Your task to perform on an android device: toggle priority inbox in the gmail app Image 0: 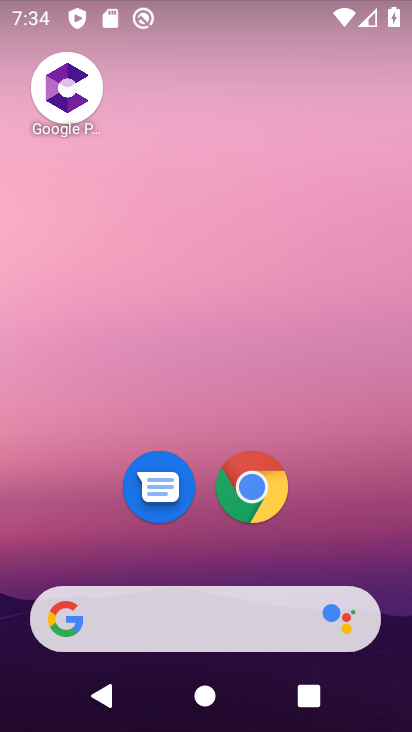
Step 0: drag from (299, 552) to (271, 75)
Your task to perform on an android device: toggle priority inbox in the gmail app Image 1: 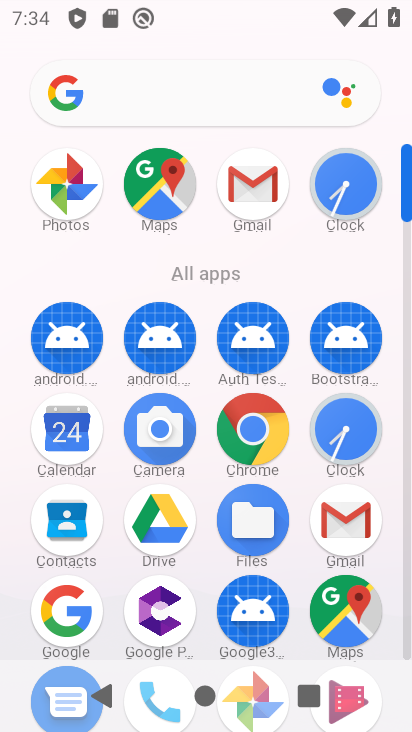
Step 1: click (252, 177)
Your task to perform on an android device: toggle priority inbox in the gmail app Image 2: 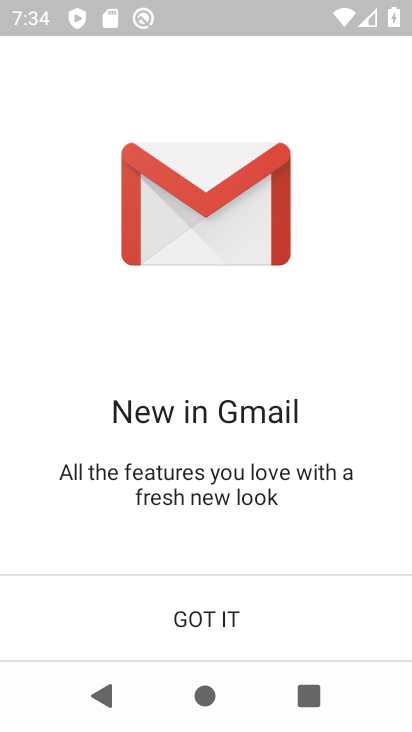
Step 2: click (223, 616)
Your task to perform on an android device: toggle priority inbox in the gmail app Image 3: 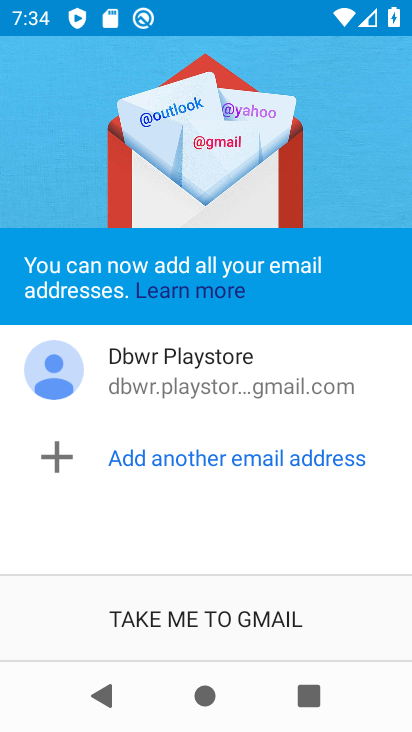
Step 3: click (223, 616)
Your task to perform on an android device: toggle priority inbox in the gmail app Image 4: 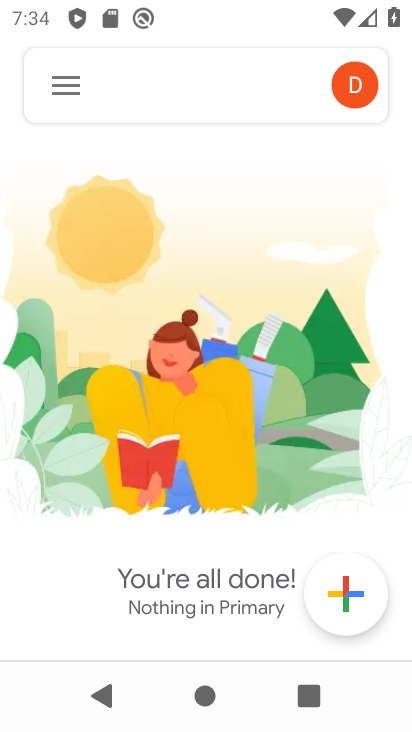
Step 4: click (62, 82)
Your task to perform on an android device: toggle priority inbox in the gmail app Image 5: 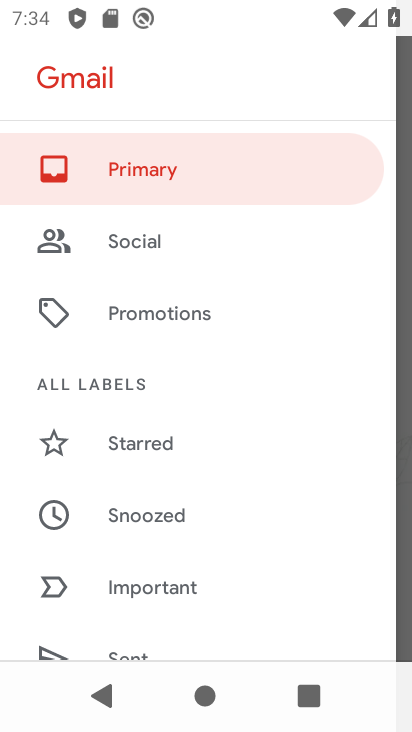
Step 5: drag from (215, 541) to (202, 98)
Your task to perform on an android device: toggle priority inbox in the gmail app Image 6: 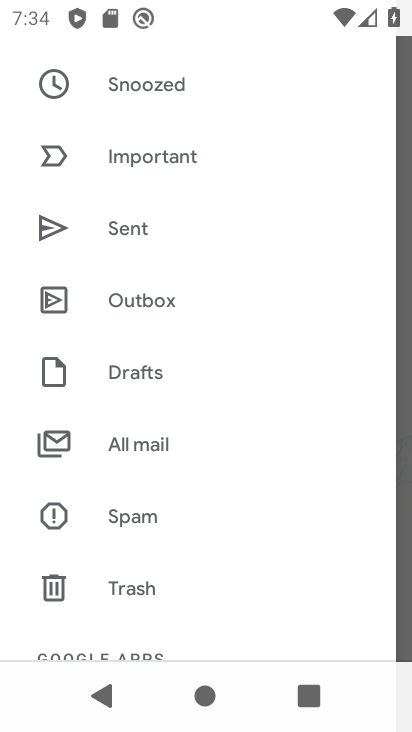
Step 6: drag from (255, 597) to (246, 197)
Your task to perform on an android device: toggle priority inbox in the gmail app Image 7: 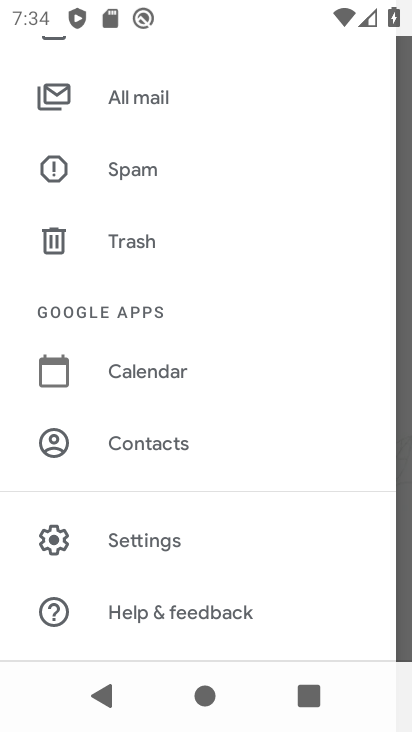
Step 7: click (140, 538)
Your task to perform on an android device: toggle priority inbox in the gmail app Image 8: 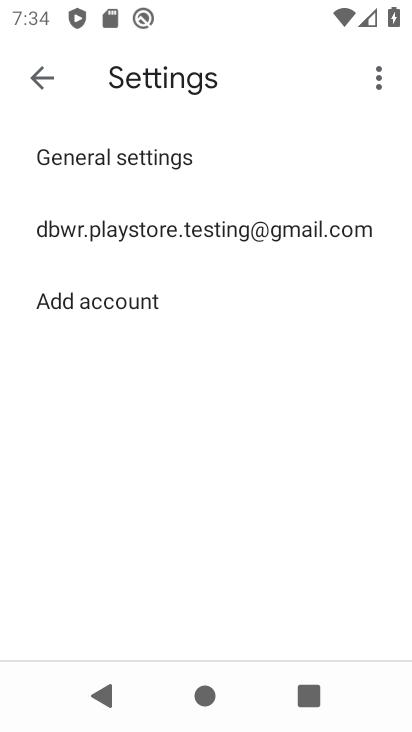
Step 8: click (174, 231)
Your task to perform on an android device: toggle priority inbox in the gmail app Image 9: 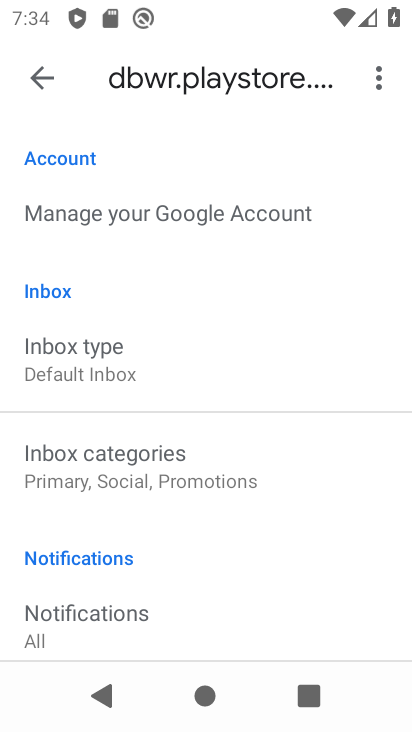
Step 9: click (66, 373)
Your task to perform on an android device: toggle priority inbox in the gmail app Image 10: 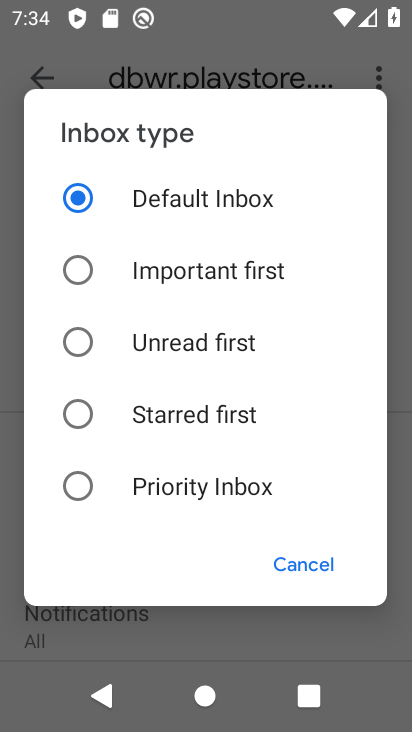
Step 10: click (175, 478)
Your task to perform on an android device: toggle priority inbox in the gmail app Image 11: 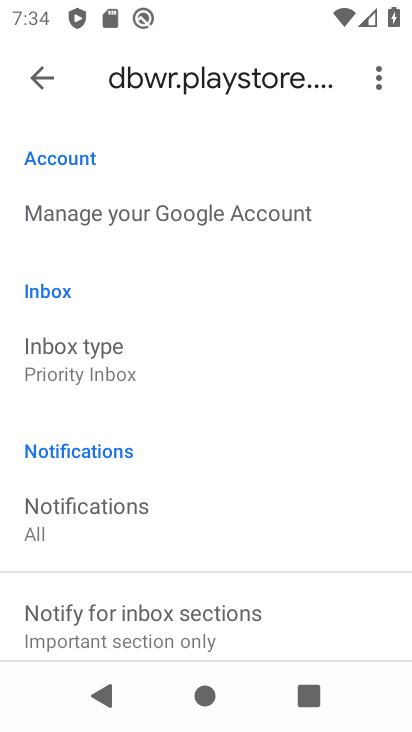
Step 11: task complete